Your task to perform on an android device: Empty the shopping cart on costco.com. Add macbook air to the cart on costco.com Image 0: 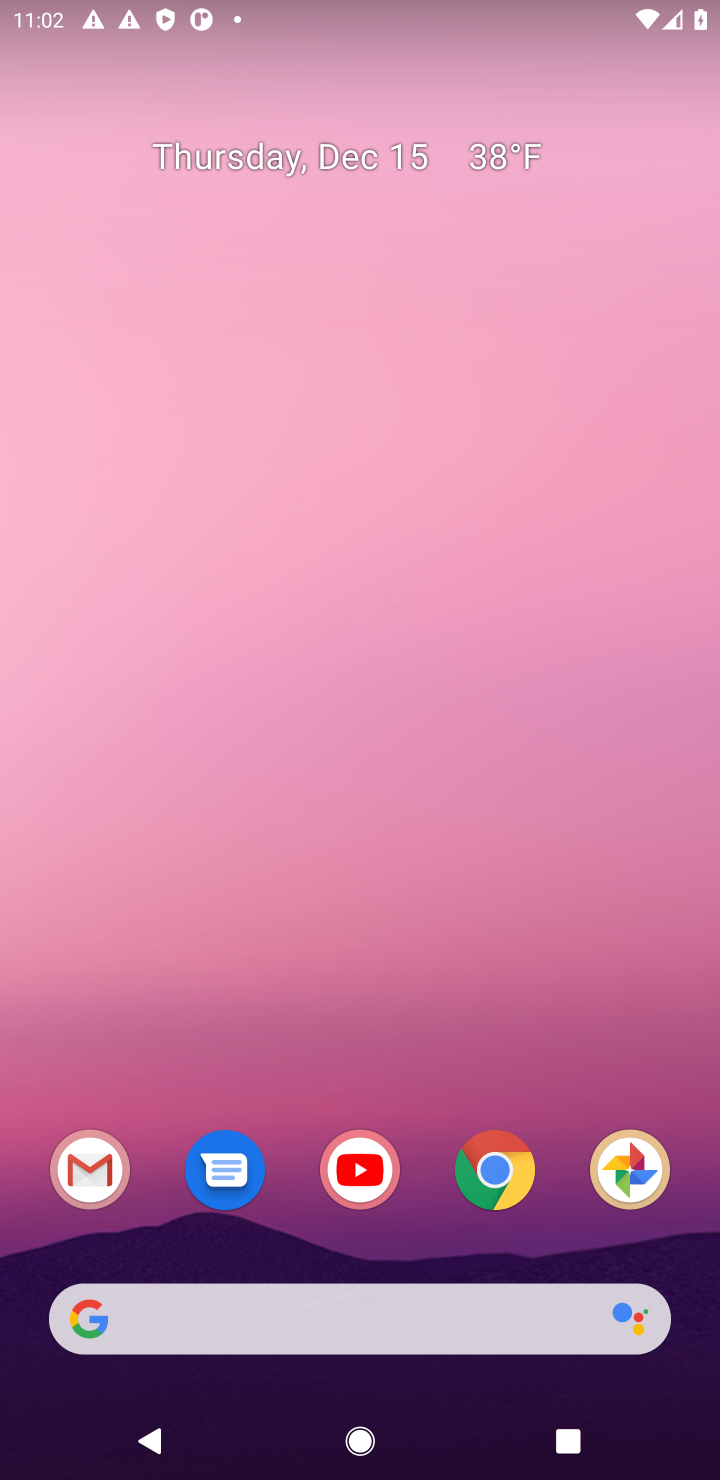
Step 0: click (495, 1185)
Your task to perform on an android device: Empty the shopping cart on costco.com. Add macbook air to the cart on costco.com Image 1: 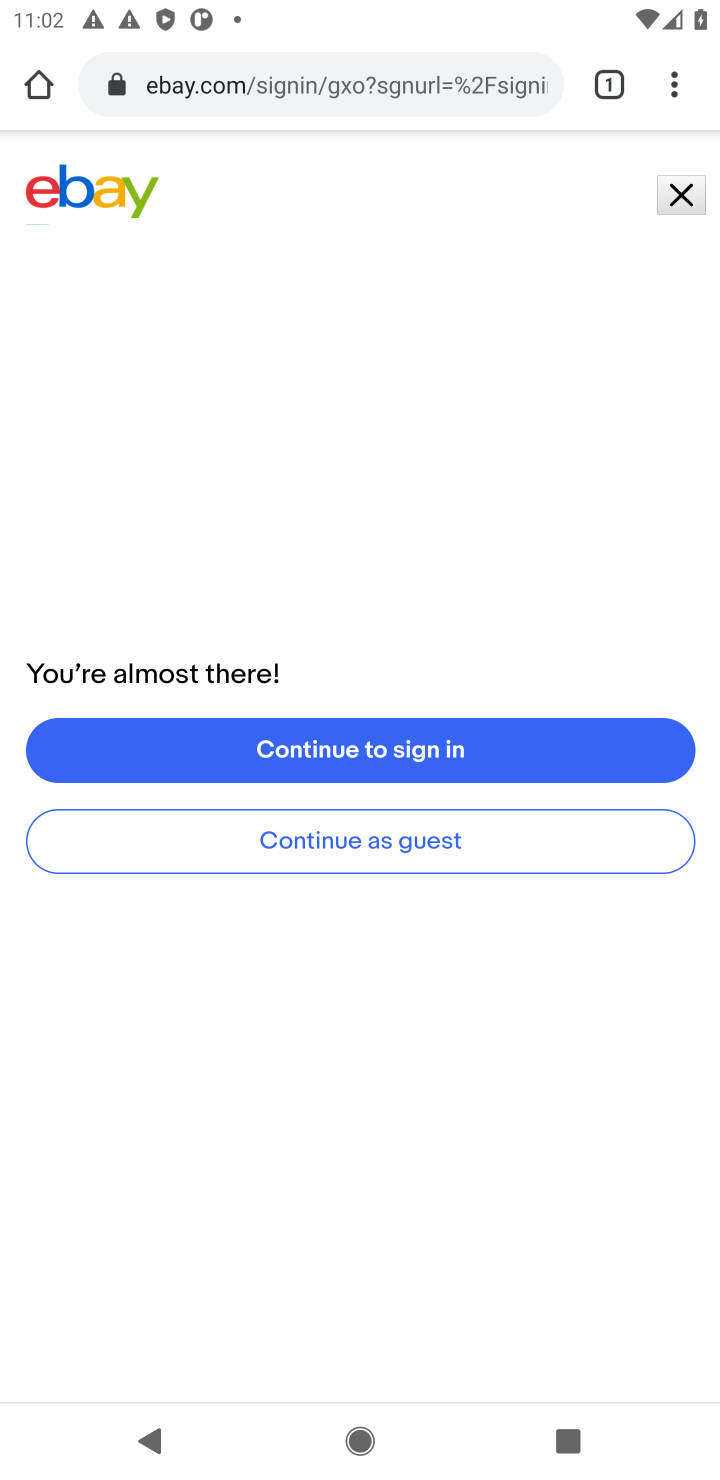
Step 1: click (220, 98)
Your task to perform on an android device: Empty the shopping cart on costco.com. Add macbook air to the cart on costco.com Image 2: 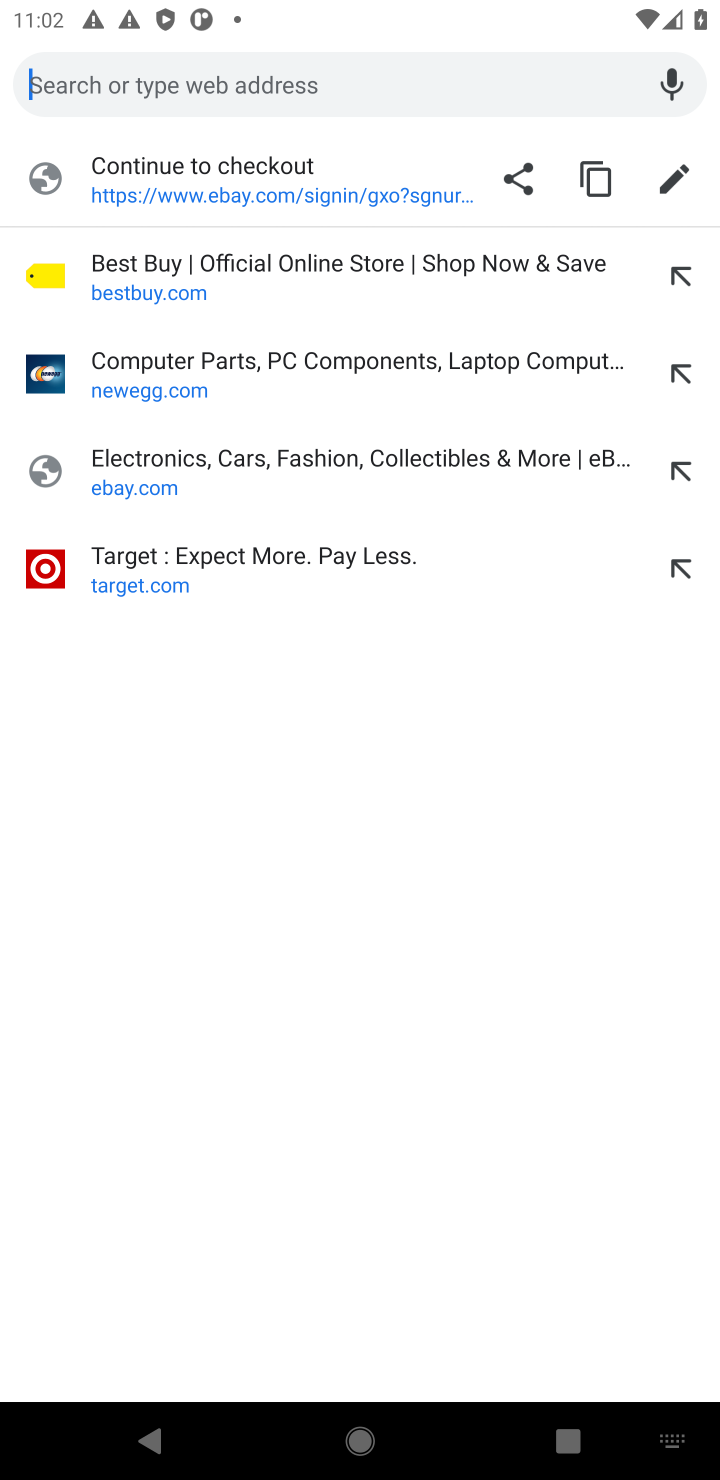
Step 2: type "costco.com"
Your task to perform on an android device: Empty the shopping cart on costco.com. Add macbook air to the cart on costco.com Image 3: 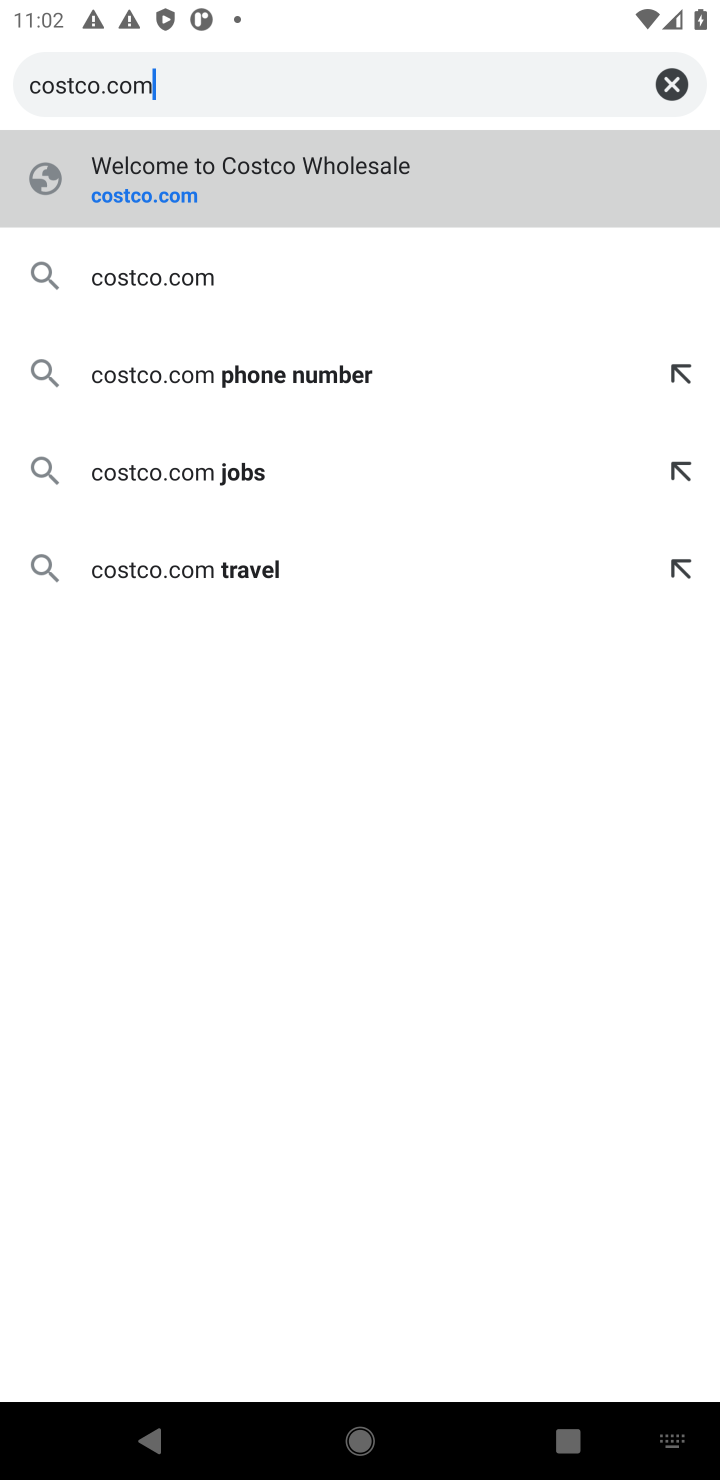
Step 3: click (160, 199)
Your task to perform on an android device: Empty the shopping cart on costco.com. Add macbook air to the cart on costco.com Image 4: 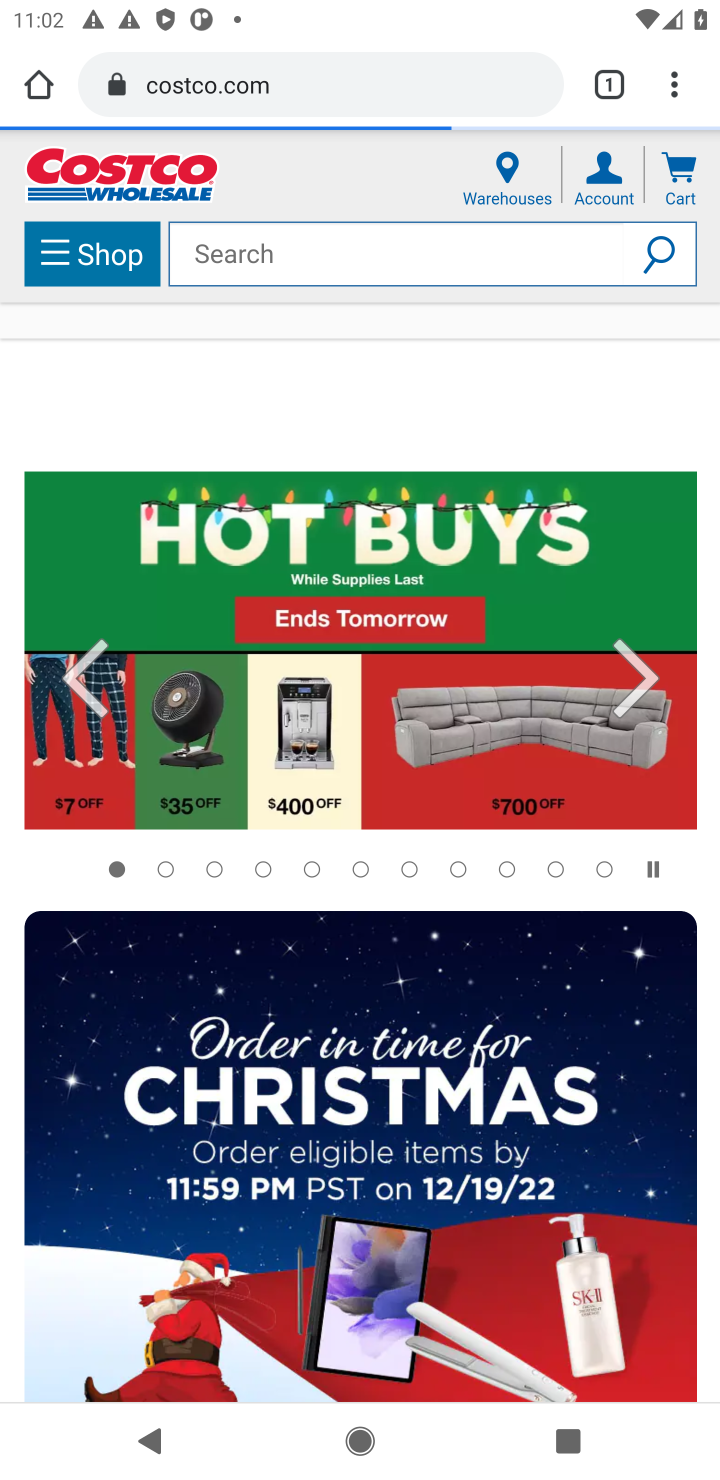
Step 4: click (681, 182)
Your task to perform on an android device: Empty the shopping cart on costco.com. Add macbook air to the cart on costco.com Image 5: 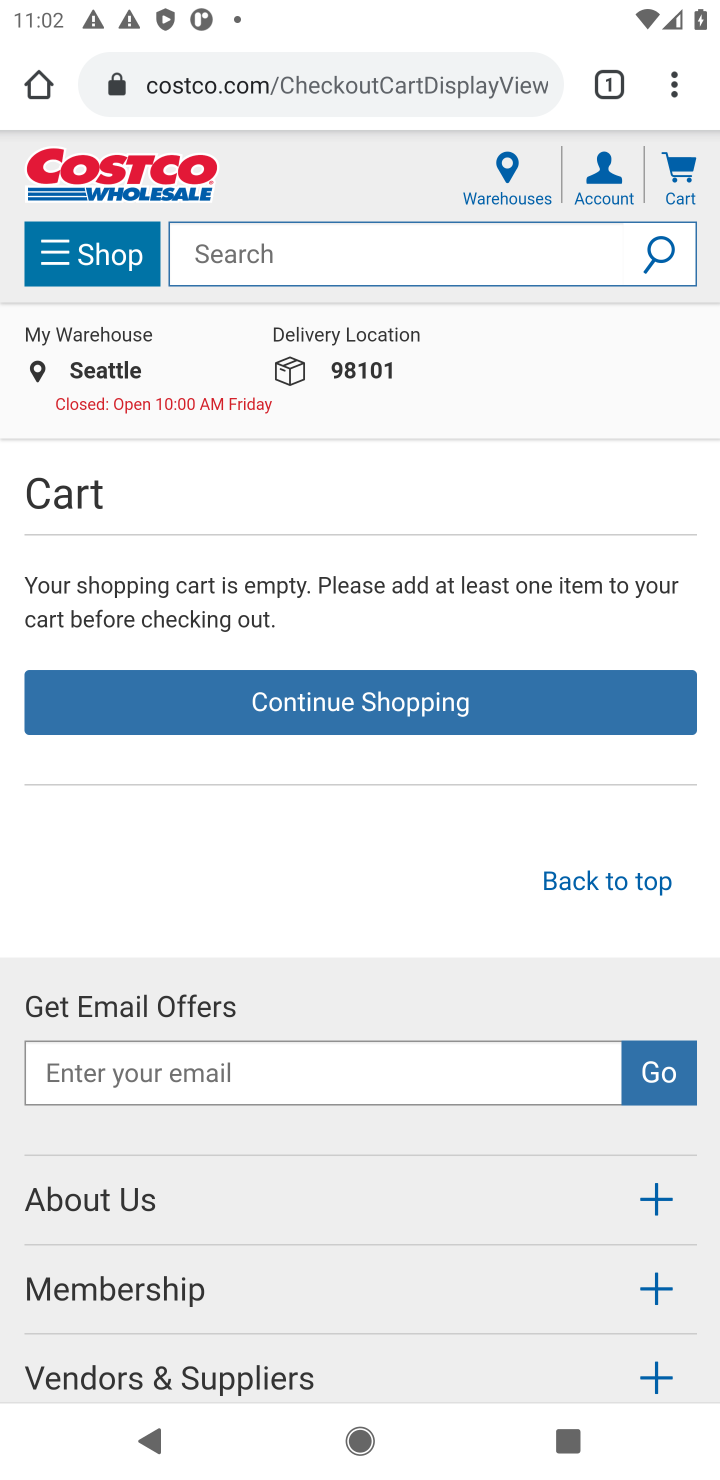
Step 5: click (273, 252)
Your task to perform on an android device: Empty the shopping cart on costco.com. Add macbook air to the cart on costco.com Image 6: 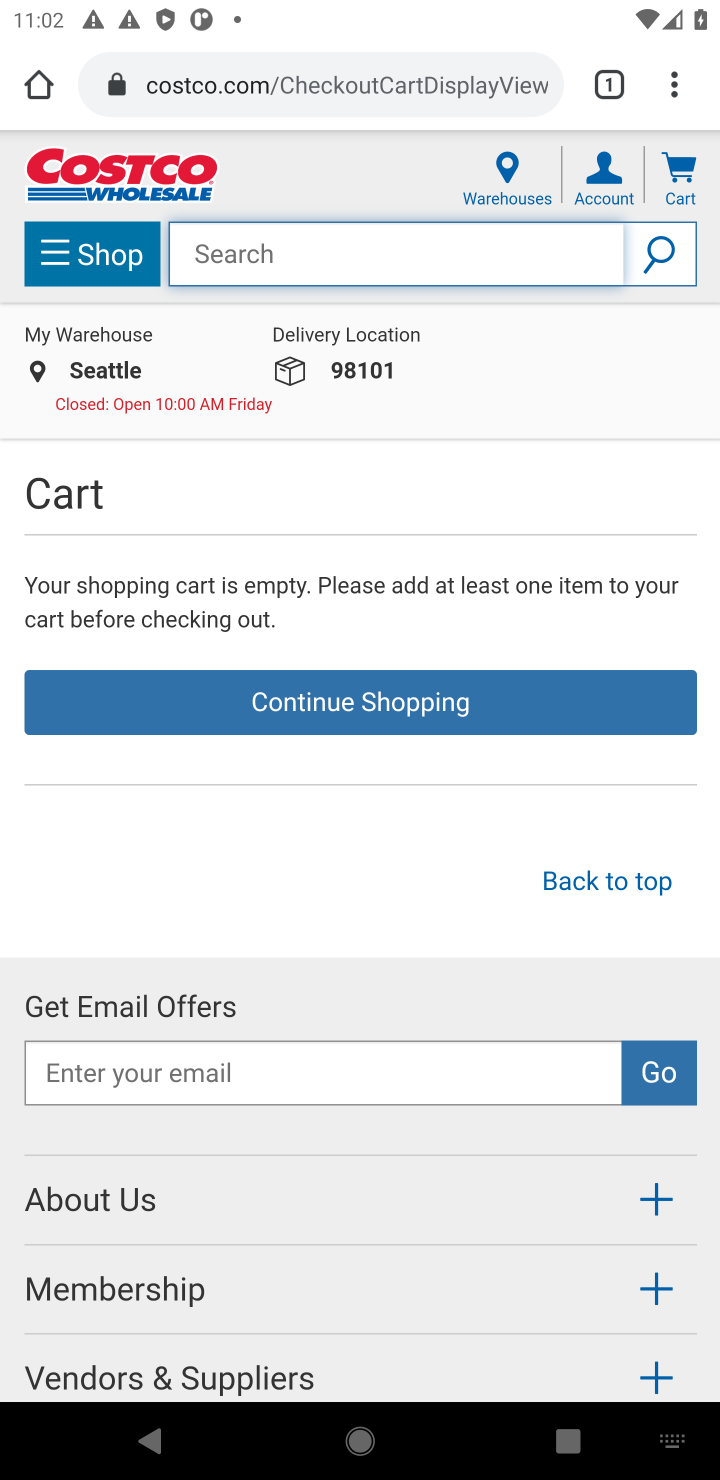
Step 6: type "macbook air"
Your task to perform on an android device: Empty the shopping cart on costco.com. Add macbook air to the cart on costco.com Image 7: 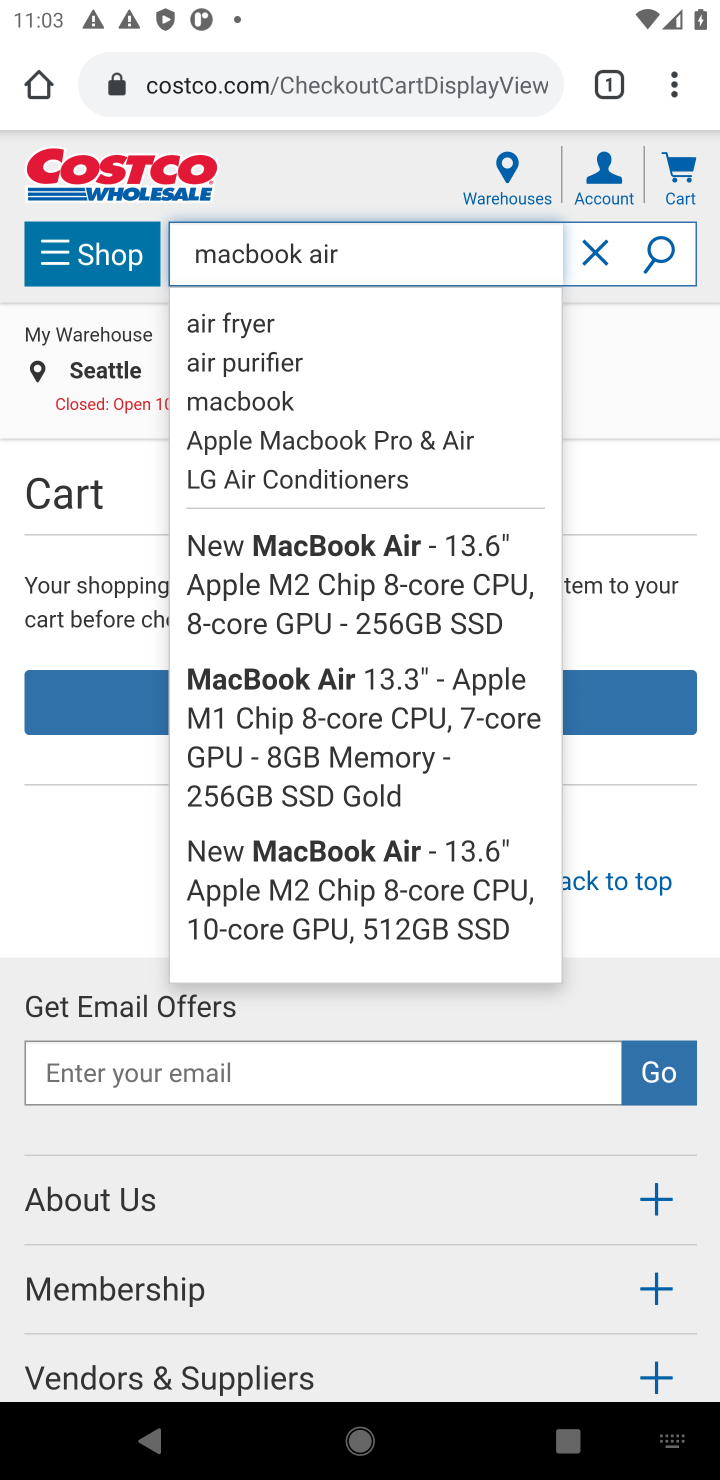
Step 7: click (670, 259)
Your task to perform on an android device: Empty the shopping cart on costco.com. Add macbook air to the cart on costco.com Image 8: 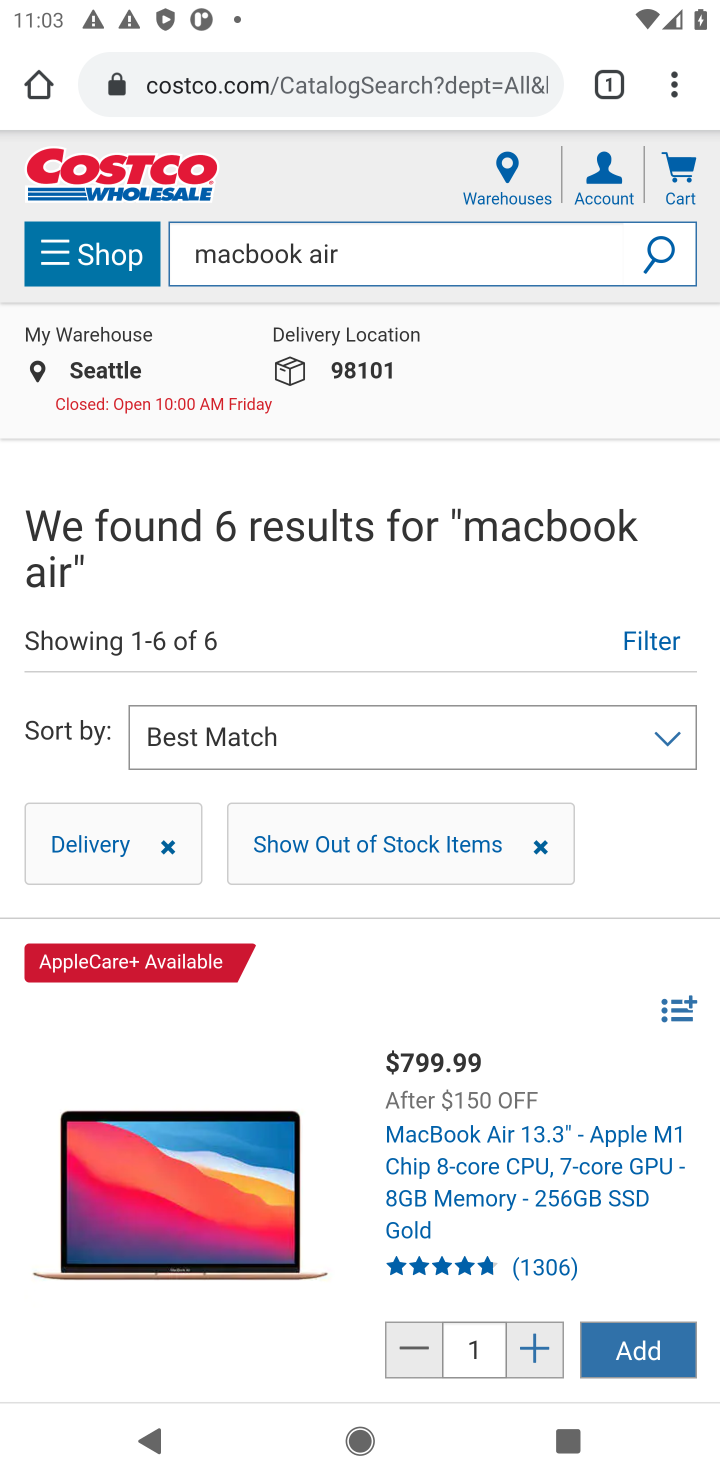
Step 8: click (629, 1356)
Your task to perform on an android device: Empty the shopping cart on costco.com. Add macbook air to the cart on costco.com Image 9: 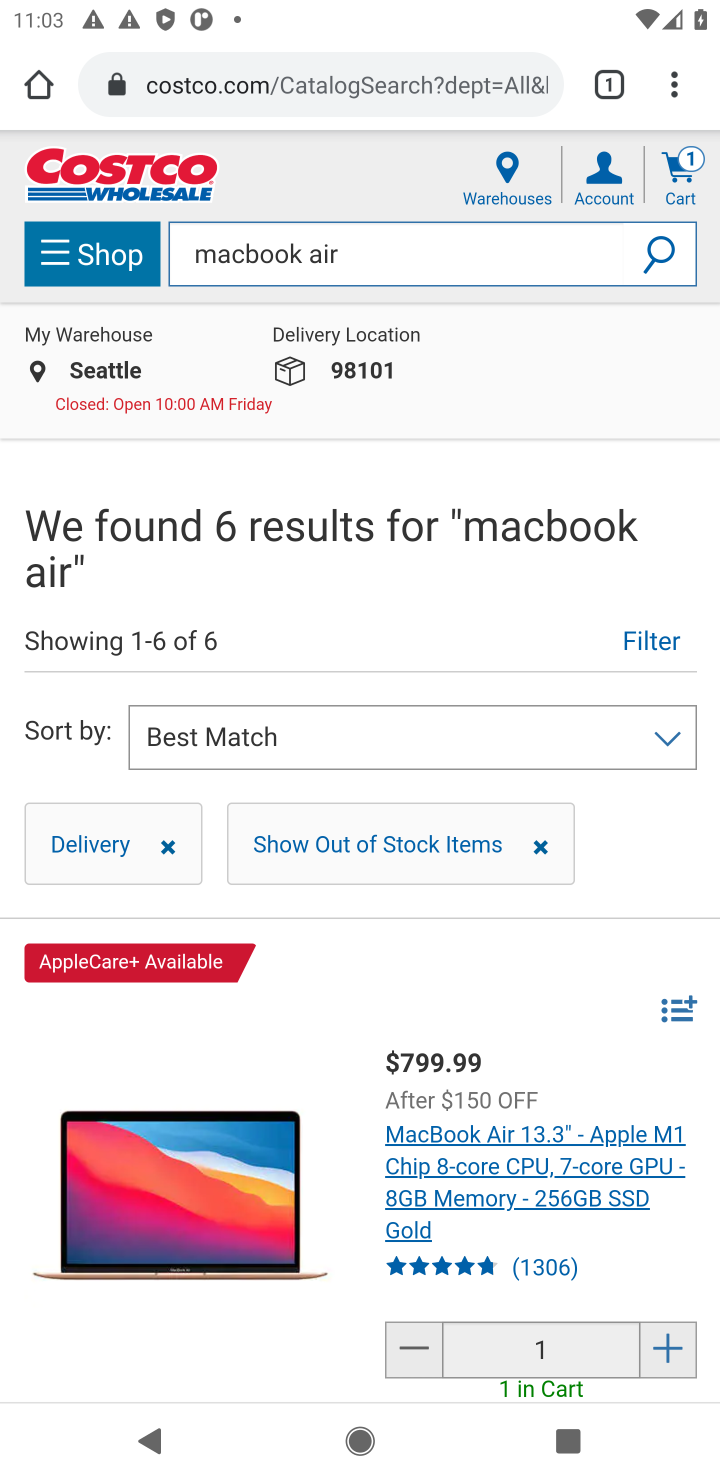
Step 9: task complete